Your task to perform on an android device: change text size in settings app Image 0: 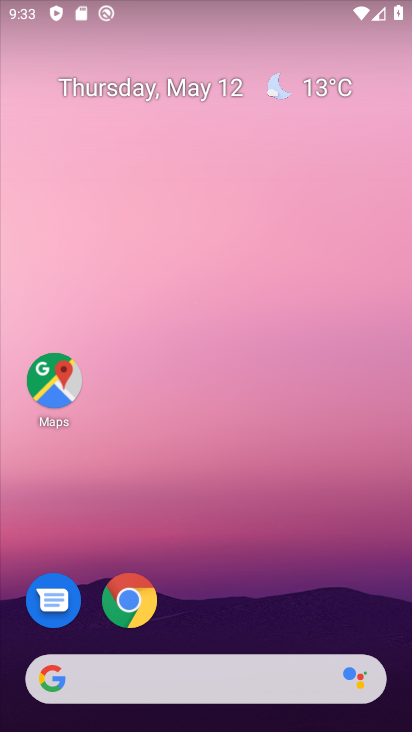
Step 0: drag from (233, 606) to (305, 0)
Your task to perform on an android device: change text size in settings app Image 1: 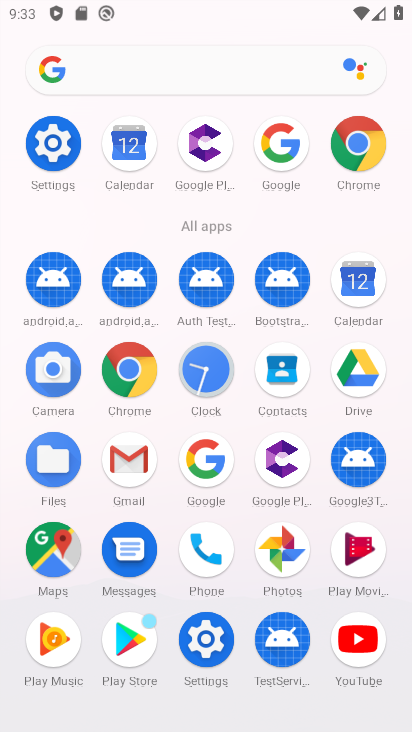
Step 1: click (59, 145)
Your task to perform on an android device: change text size in settings app Image 2: 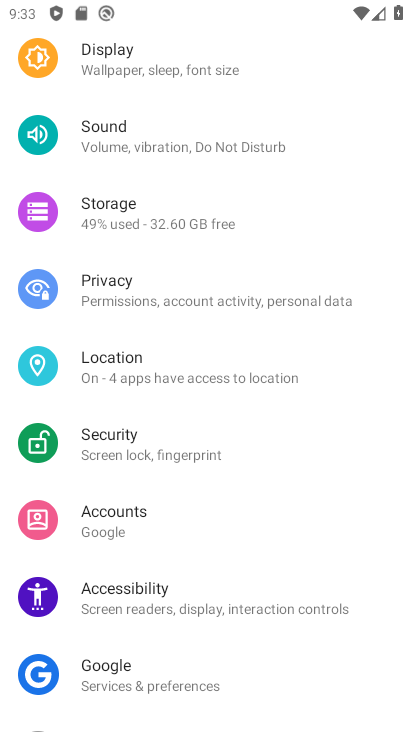
Step 2: drag from (262, 129) to (259, 679)
Your task to perform on an android device: change text size in settings app Image 3: 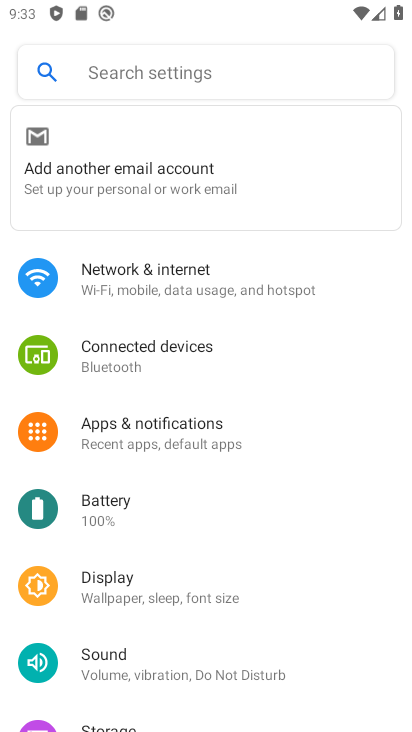
Step 3: click (152, 75)
Your task to perform on an android device: change text size in settings app Image 4: 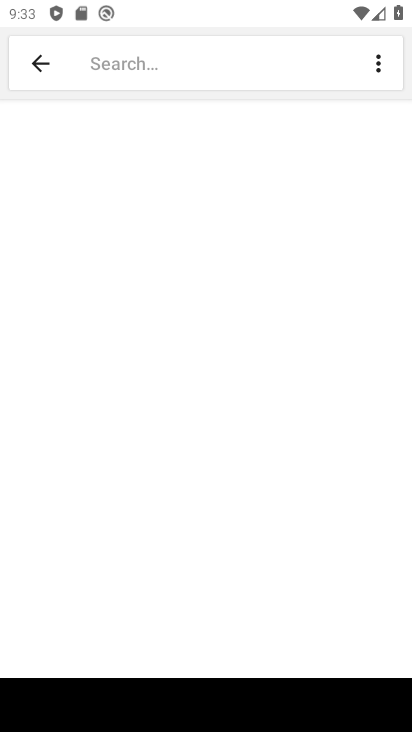
Step 4: type "text size"
Your task to perform on an android device: change text size in settings app Image 5: 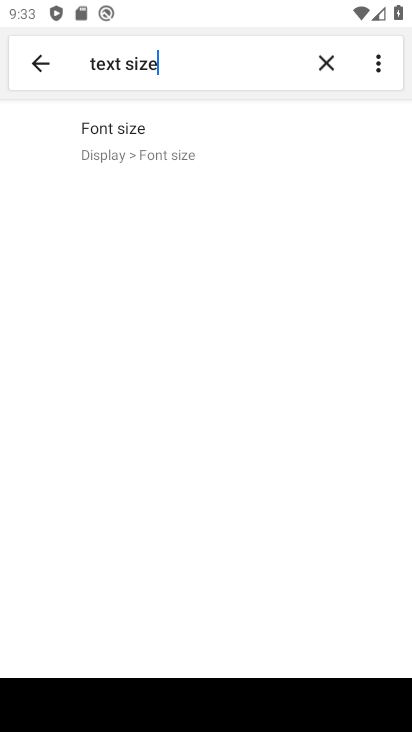
Step 5: click (120, 142)
Your task to perform on an android device: change text size in settings app Image 6: 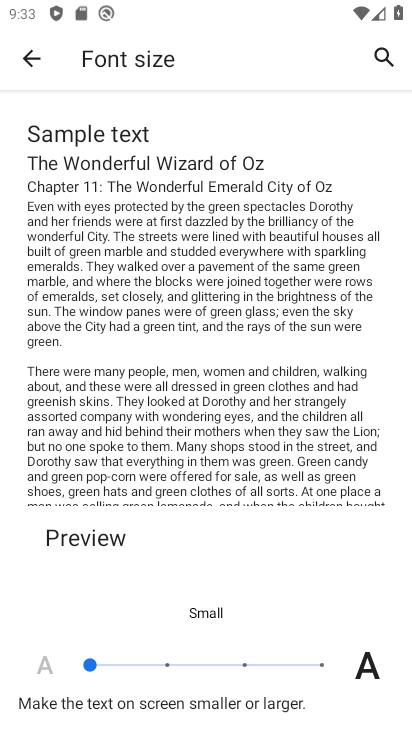
Step 6: task complete